Your task to perform on an android device: What is the recent news? Image 0: 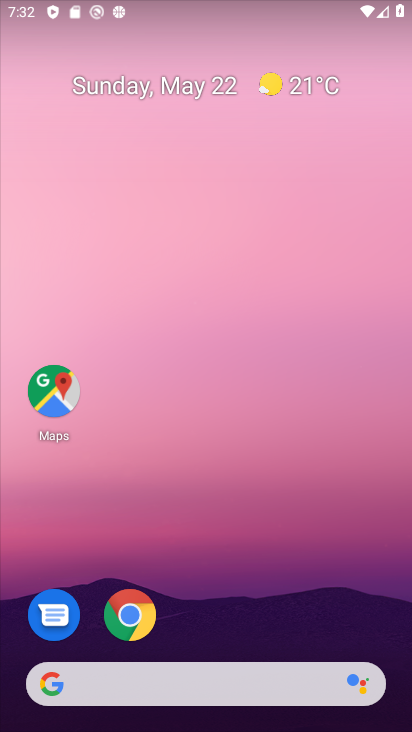
Step 0: drag from (270, 656) to (258, 290)
Your task to perform on an android device: What is the recent news? Image 1: 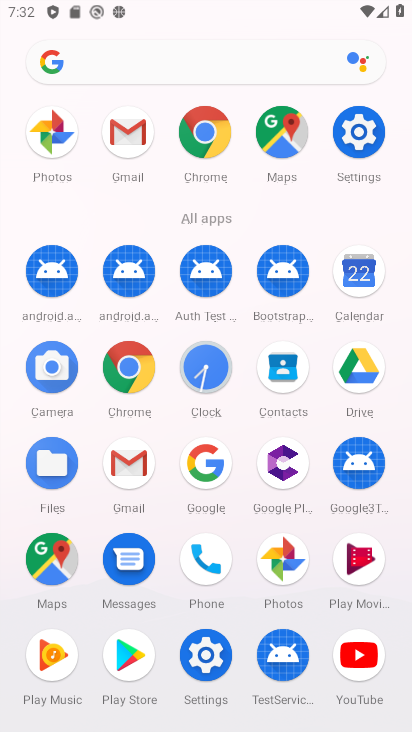
Step 1: click (191, 110)
Your task to perform on an android device: What is the recent news? Image 2: 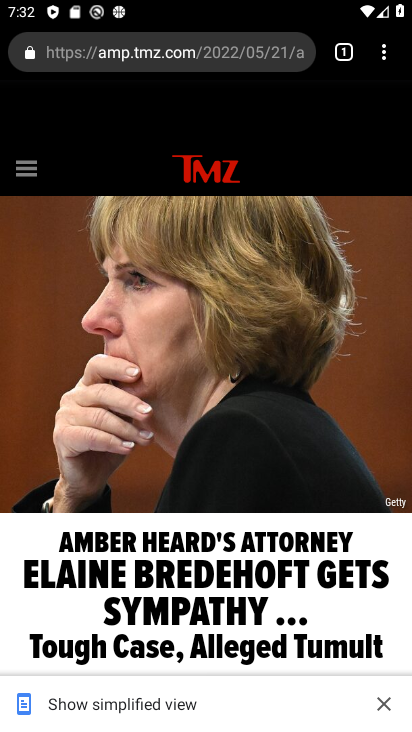
Step 2: click (397, 51)
Your task to perform on an android device: What is the recent news? Image 3: 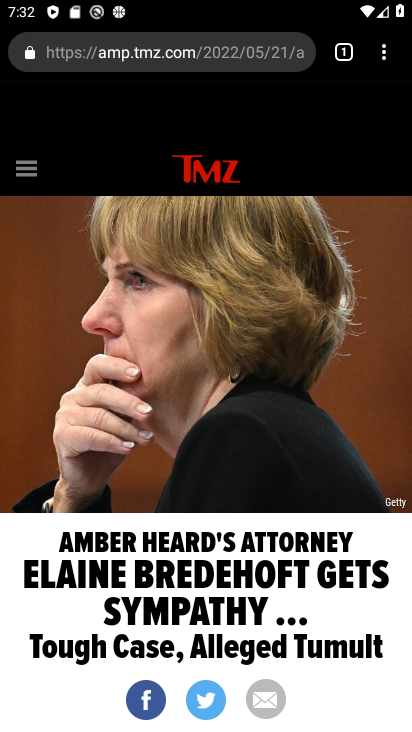
Step 3: click (384, 70)
Your task to perform on an android device: What is the recent news? Image 4: 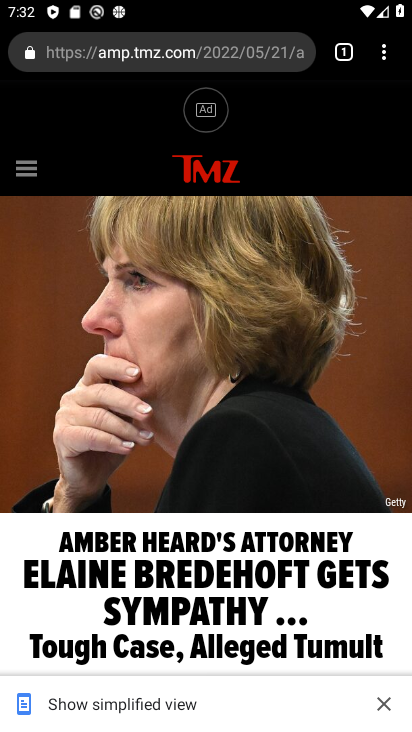
Step 4: click (391, 48)
Your task to perform on an android device: What is the recent news? Image 5: 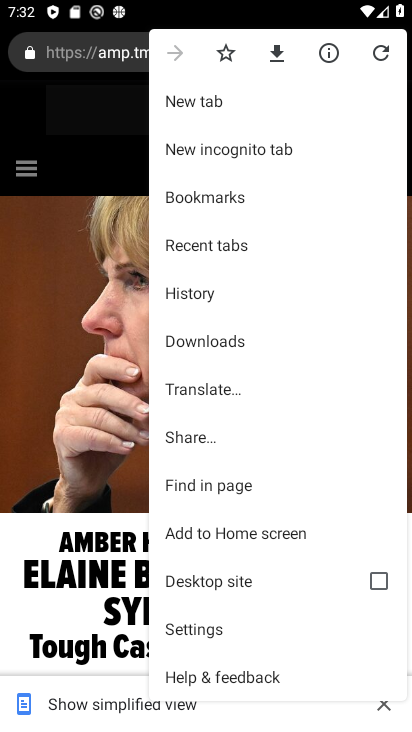
Step 5: click (225, 99)
Your task to perform on an android device: What is the recent news? Image 6: 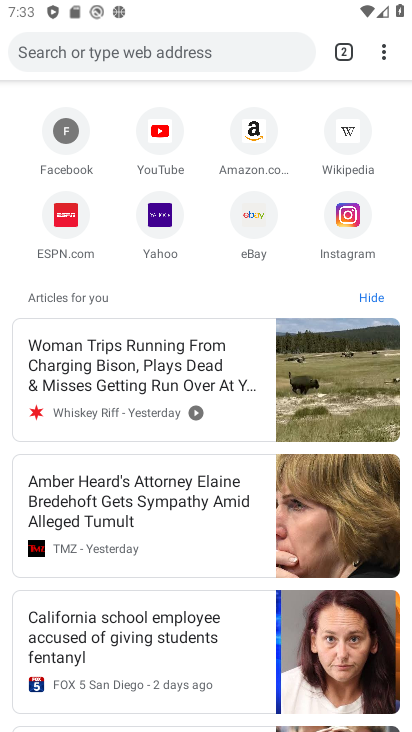
Step 6: click (152, 53)
Your task to perform on an android device: What is the recent news? Image 7: 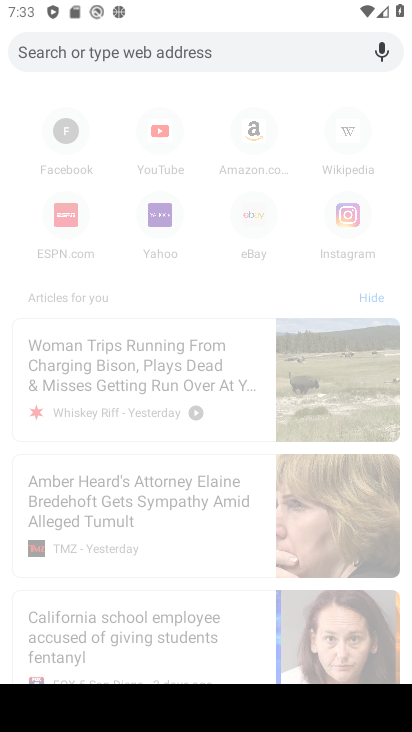
Step 7: type "What is the recent news?"
Your task to perform on an android device: What is the recent news? Image 8: 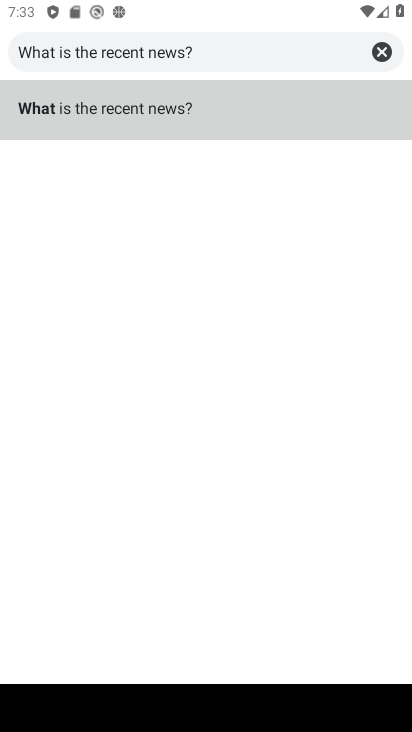
Step 8: click (305, 102)
Your task to perform on an android device: What is the recent news? Image 9: 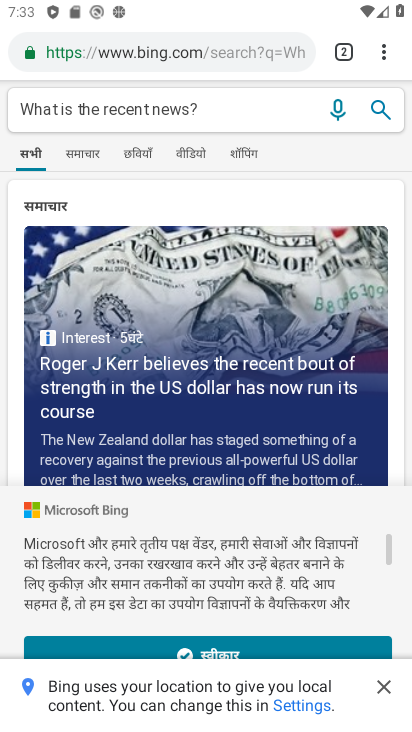
Step 9: task complete